Your task to perform on an android device: Search for Mexican restaurants on Maps Image 0: 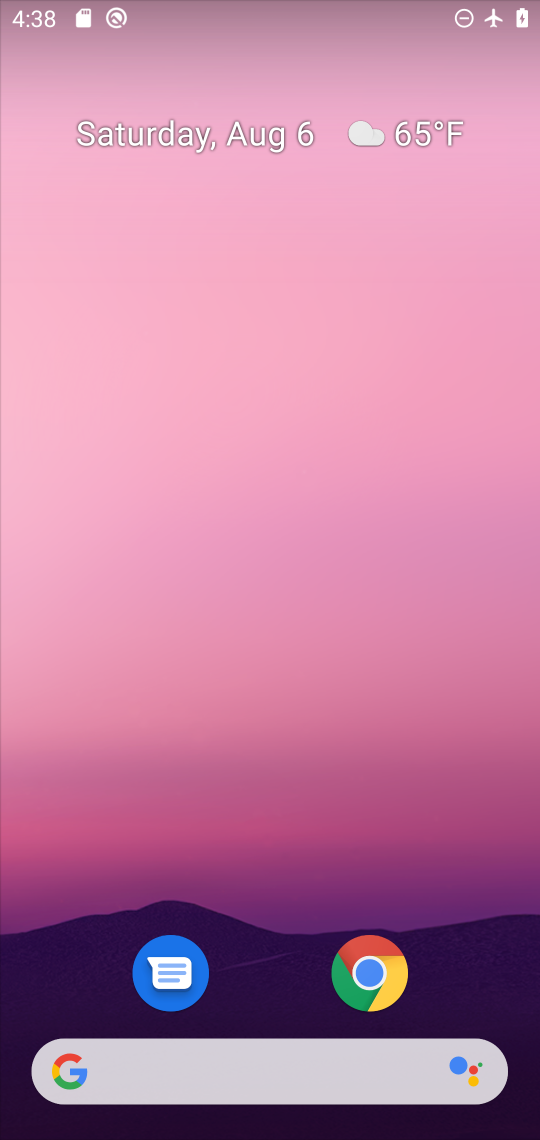
Step 0: drag from (407, 832) to (338, 179)
Your task to perform on an android device: Search for Mexican restaurants on Maps Image 1: 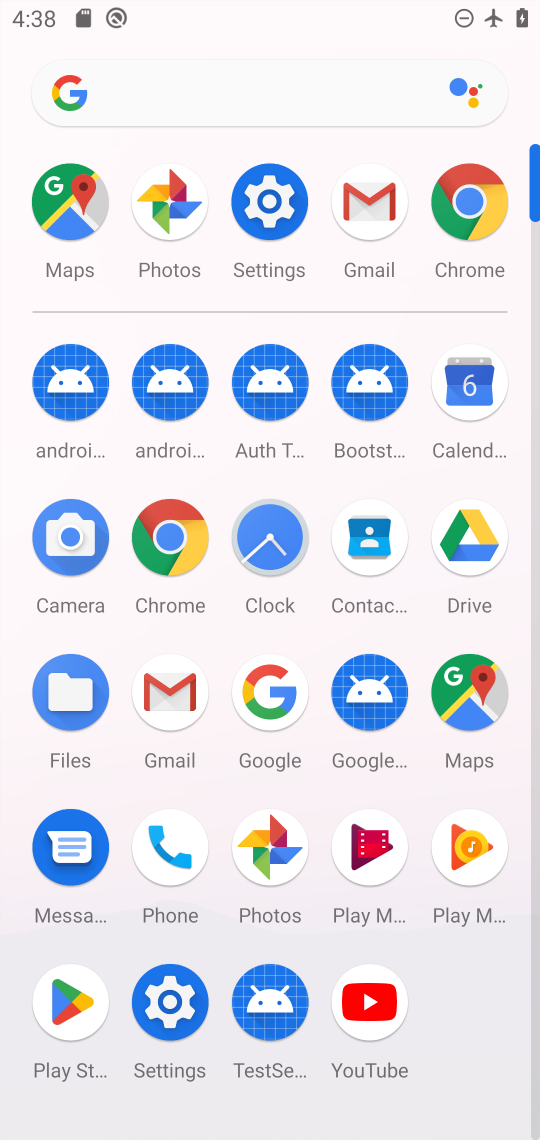
Step 1: click (467, 705)
Your task to perform on an android device: Search for Mexican restaurants on Maps Image 2: 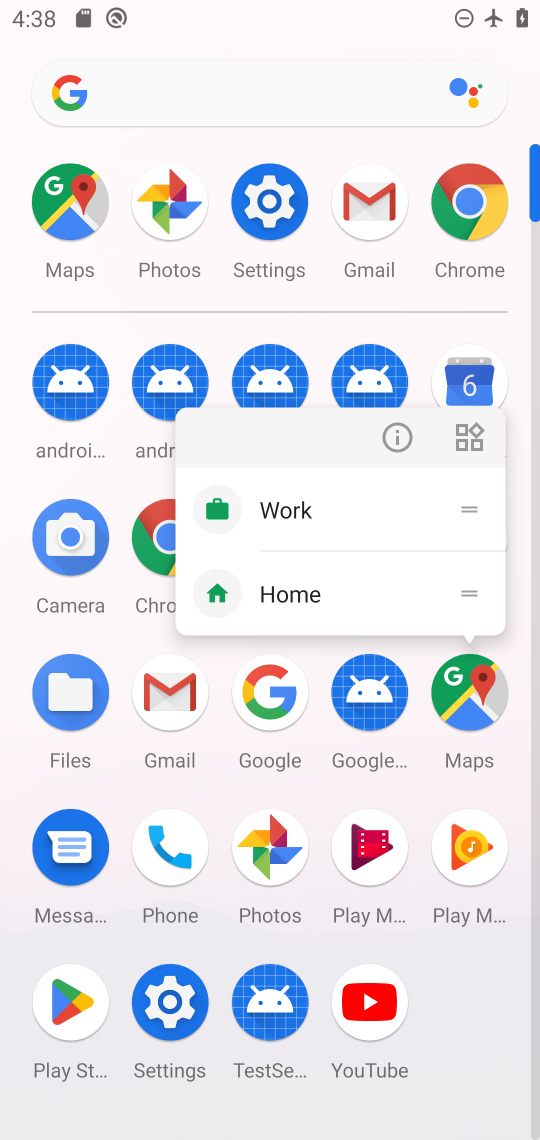
Step 2: click (471, 701)
Your task to perform on an android device: Search for Mexican restaurants on Maps Image 3: 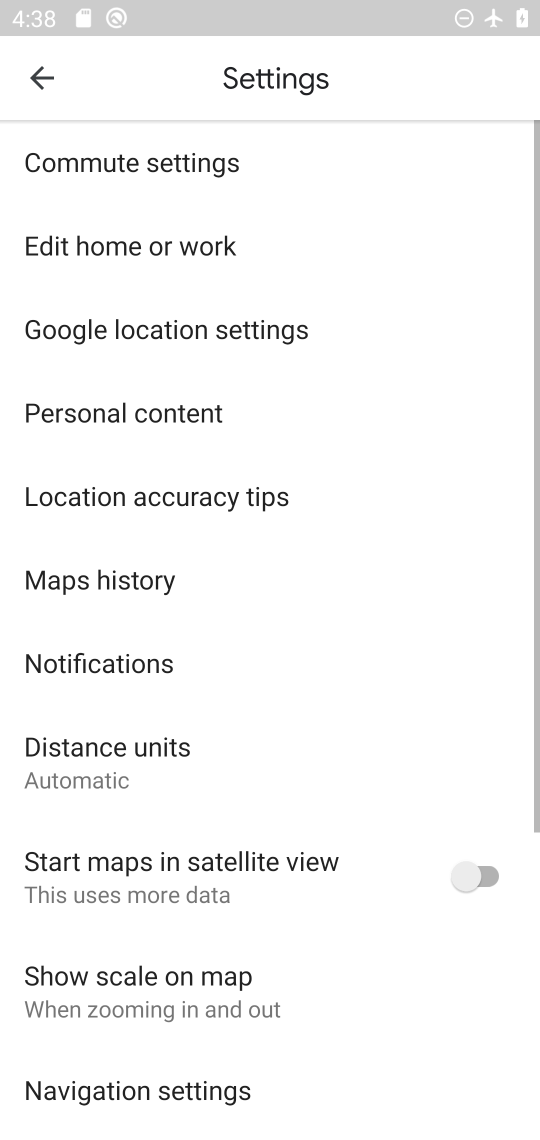
Step 3: press back button
Your task to perform on an android device: Search for Mexican restaurants on Maps Image 4: 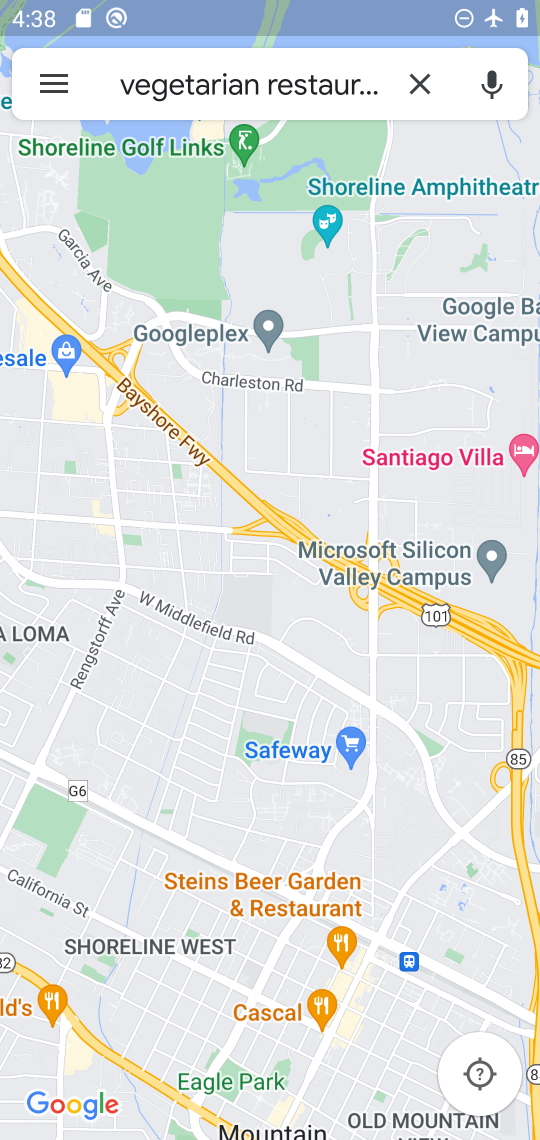
Step 4: click (216, 80)
Your task to perform on an android device: Search for Mexican restaurants on Maps Image 5: 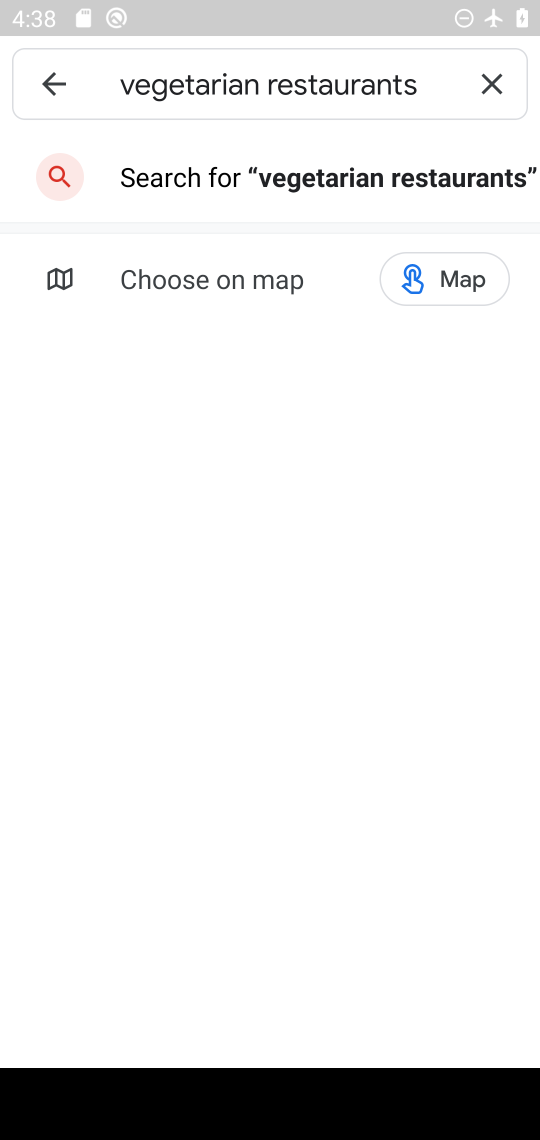
Step 5: click (498, 77)
Your task to perform on an android device: Search for Mexican restaurants on Maps Image 6: 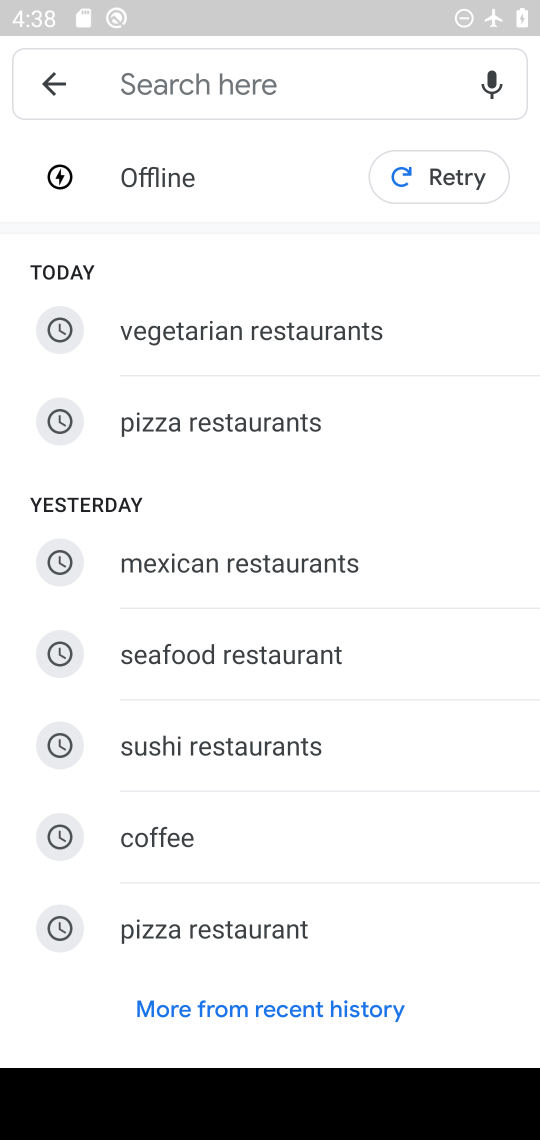
Step 6: click (199, 570)
Your task to perform on an android device: Search for Mexican restaurants on Maps Image 7: 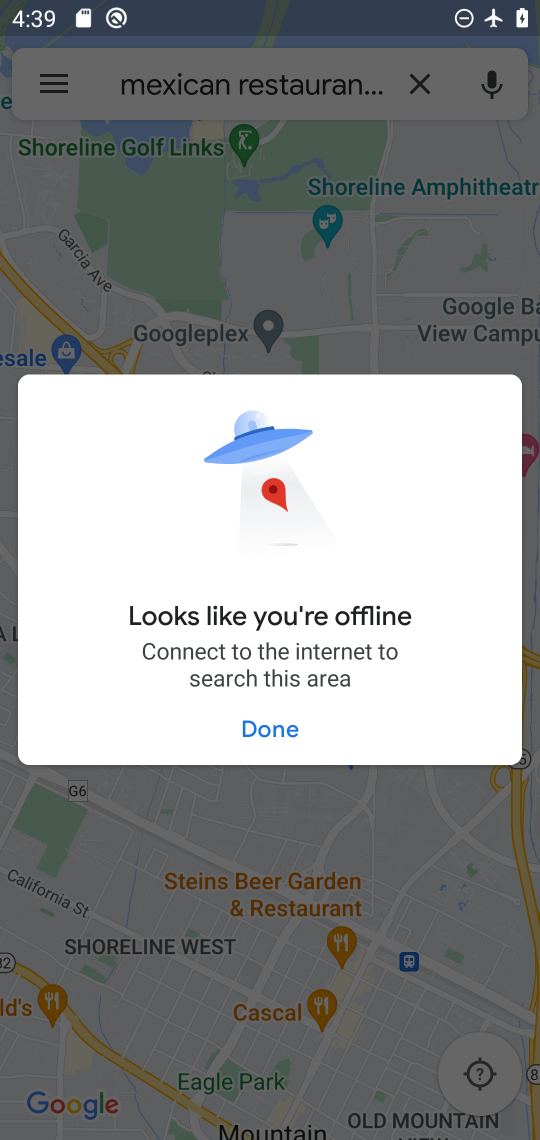
Step 7: task complete